Your task to perform on an android device: move a message to another label in the gmail app Image 0: 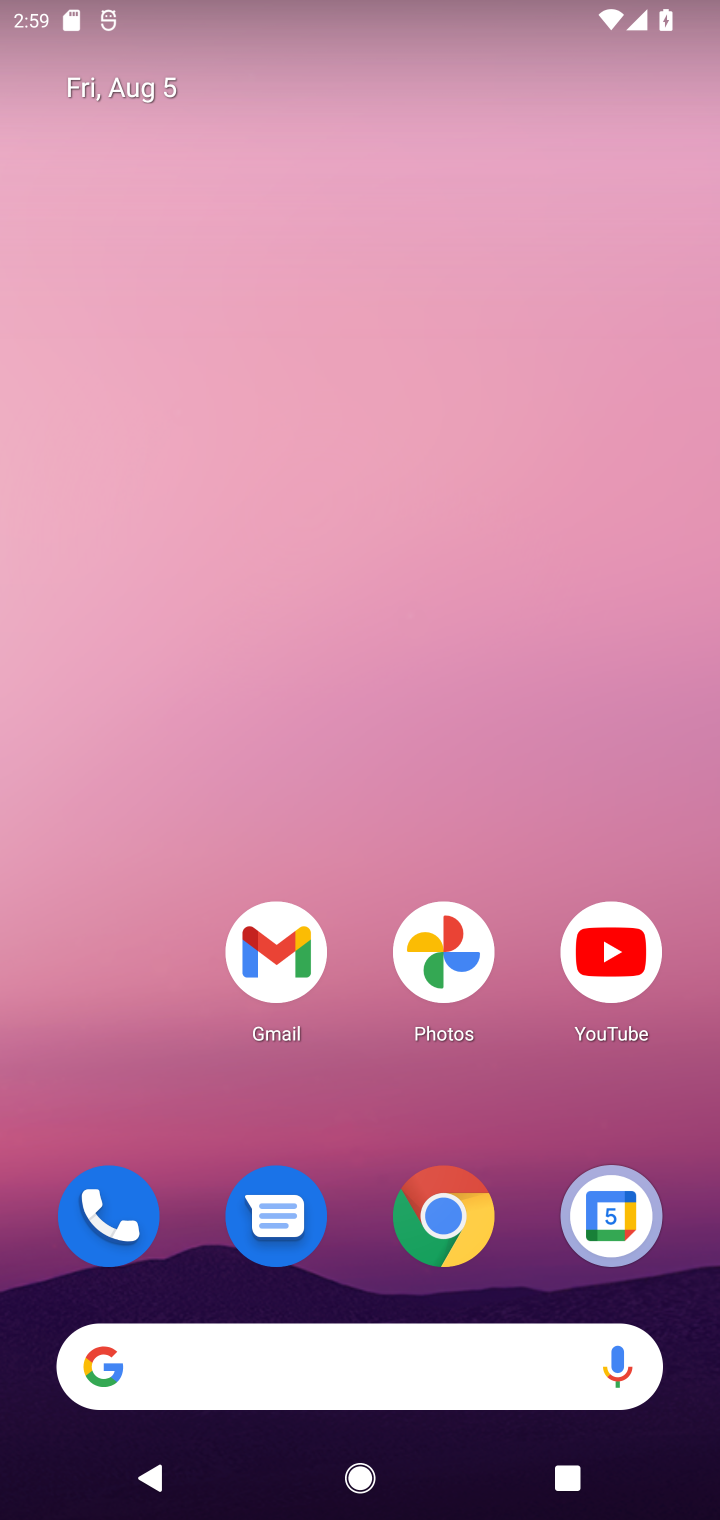
Step 0: click (282, 959)
Your task to perform on an android device: move a message to another label in the gmail app Image 1: 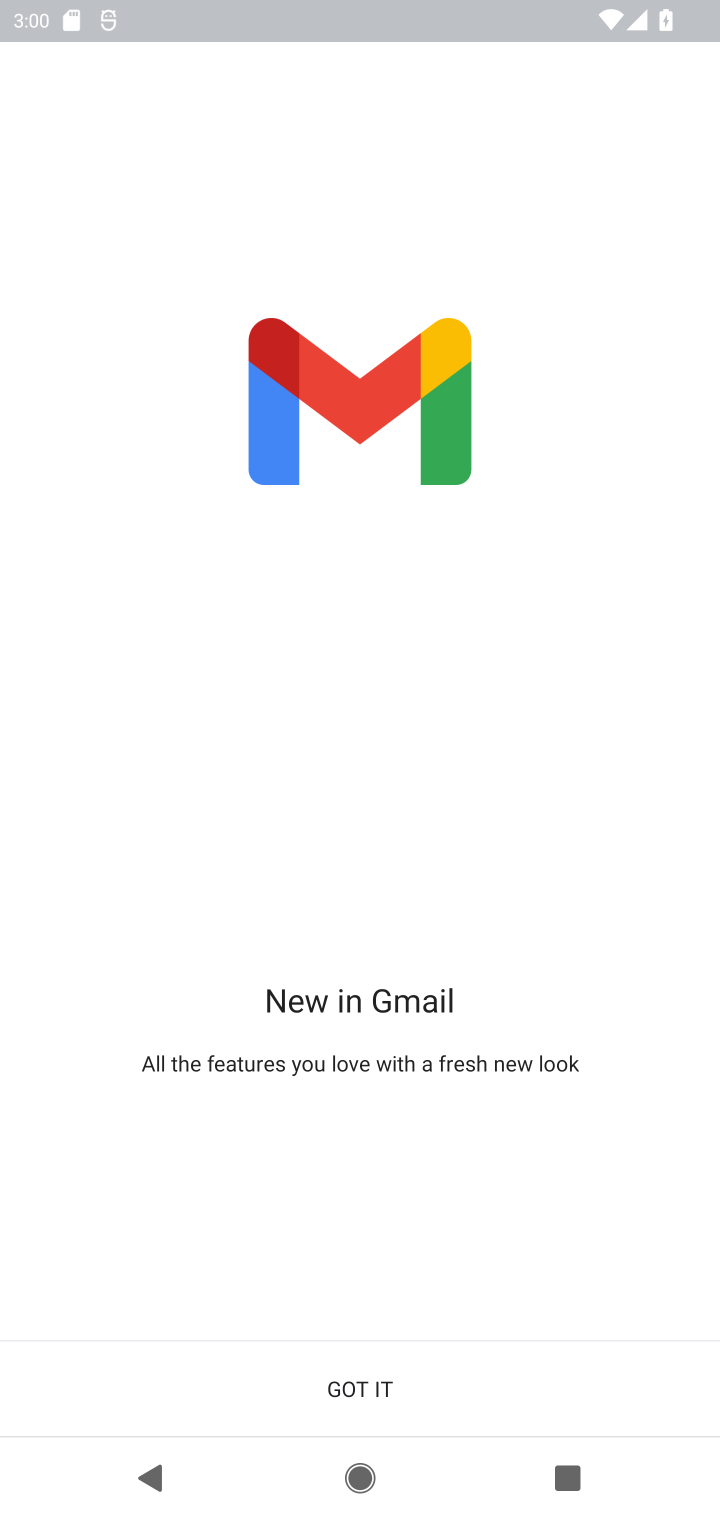
Step 1: click (430, 1380)
Your task to perform on an android device: move a message to another label in the gmail app Image 2: 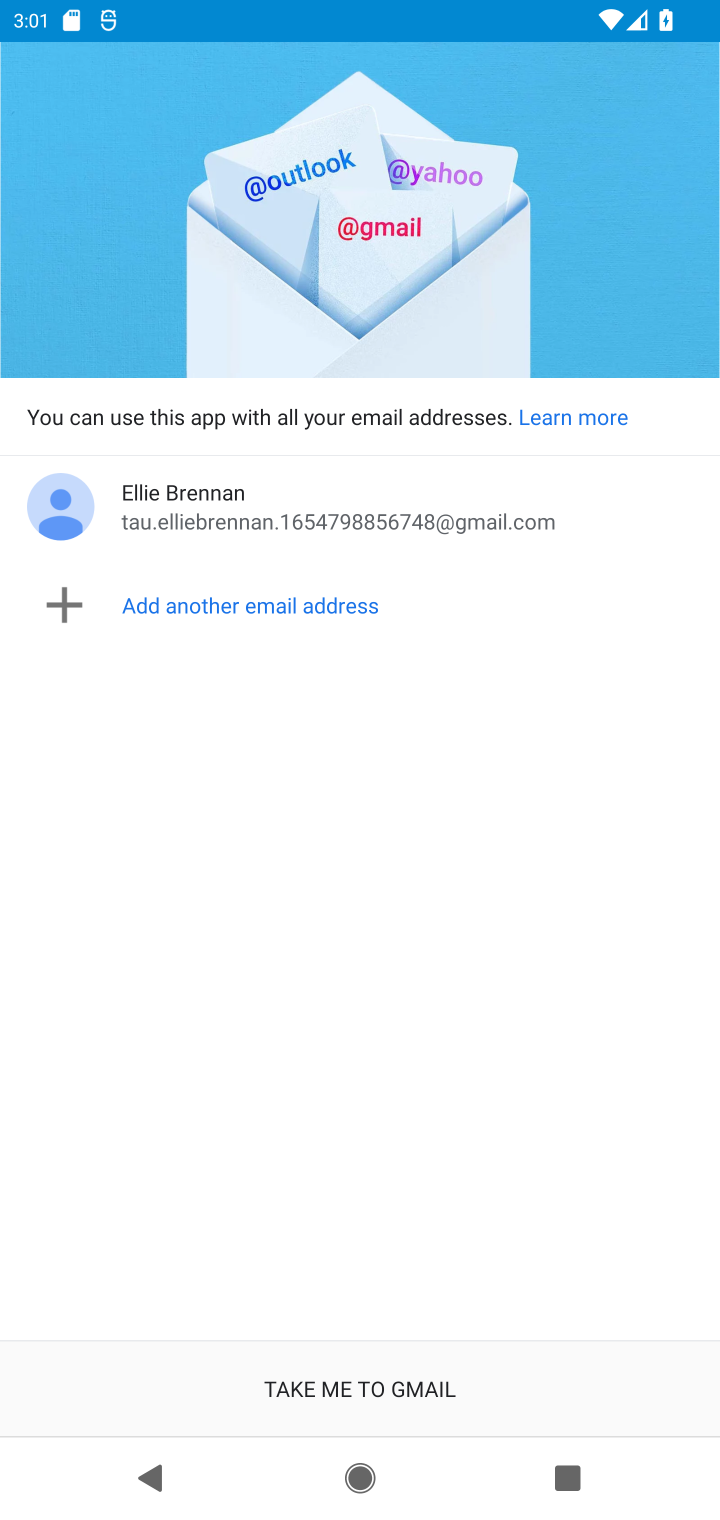
Step 2: click (344, 1390)
Your task to perform on an android device: move a message to another label in the gmail app Image 3: 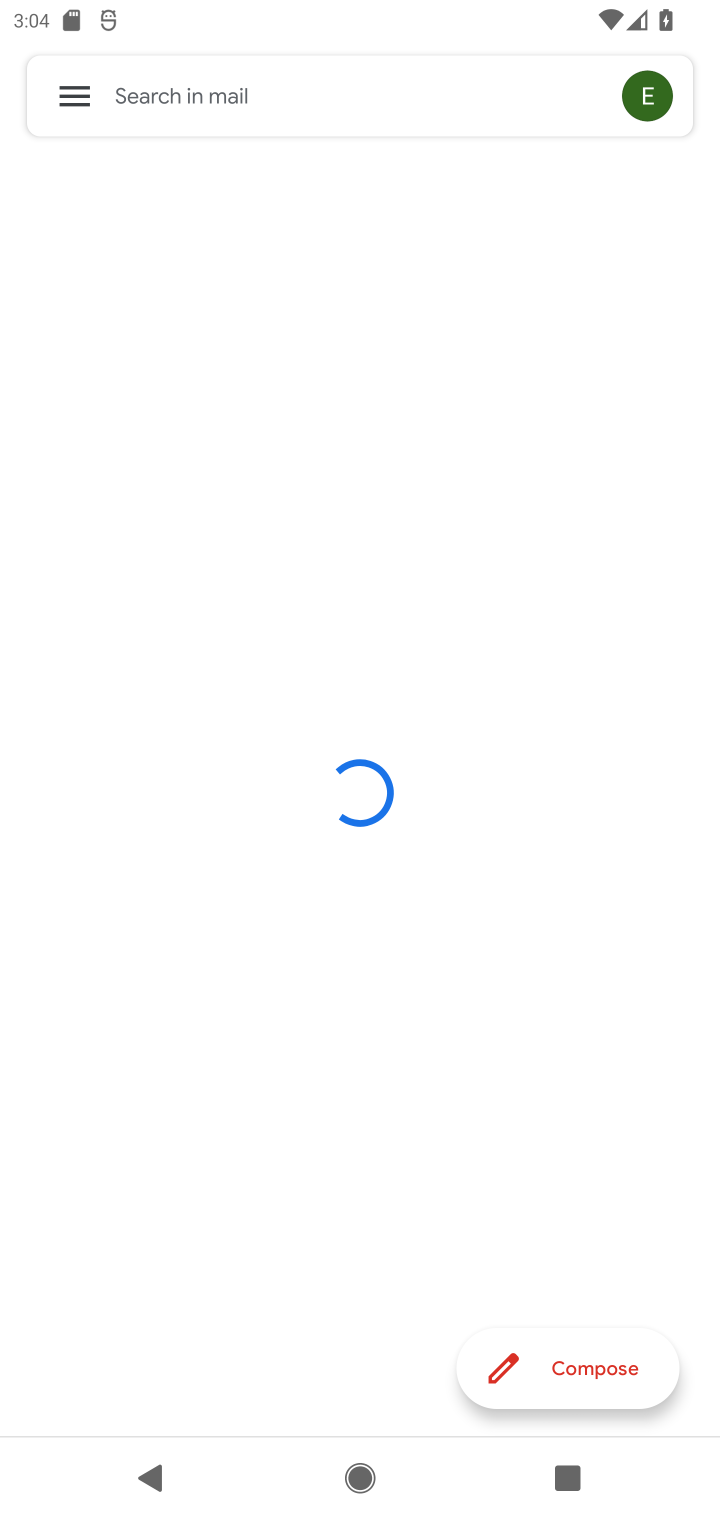
Step 3: task complete